Your task to perform on an android device: read, delete, or share a saved page in the chrome app Image 0: 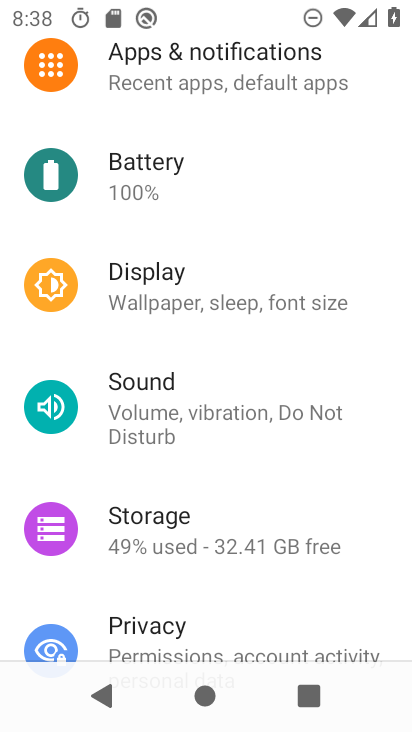
Step 0: press home button
Your task to perform on an android device: read, delete, or share a saved page in the chrome app Image 1: 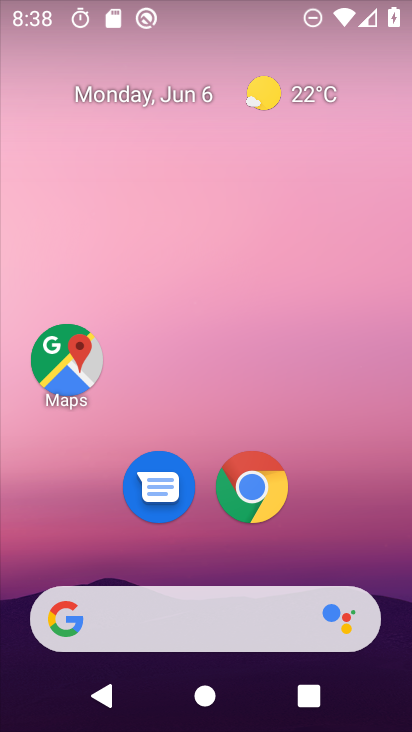
Step 1: drag from (390, 630) to (313, 162)
Your task to perform on an android device: read, delete, or share a saved page in the chrome app Image 2: 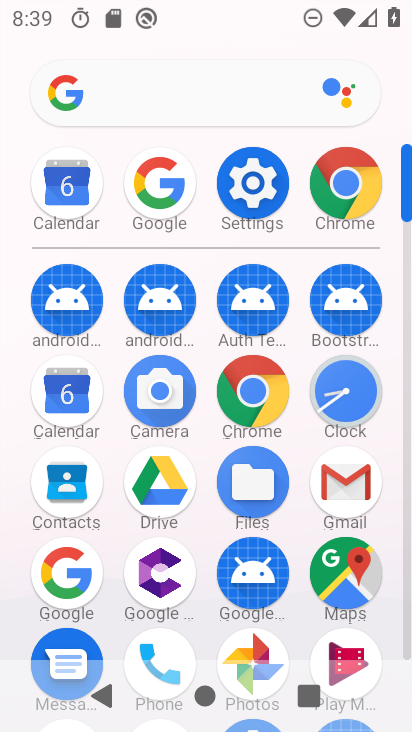
Step 2: click (259, 382)
Your task to perform on an android device: read, delete, or share a saved page in the chrome app Image 3: 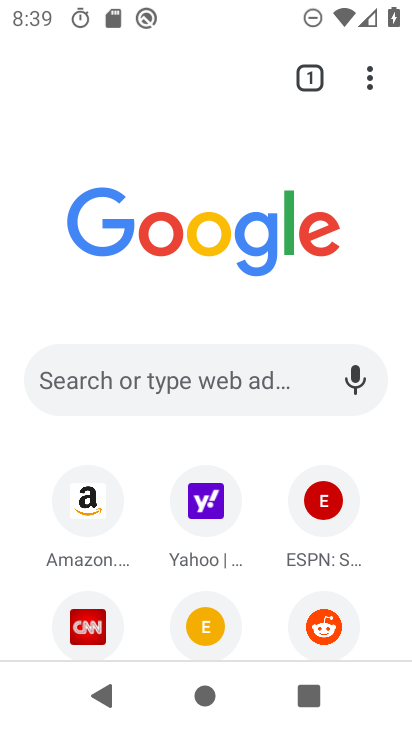
Step 3: task complete